Your task to perform on an android device: Open the calculator Image 0: 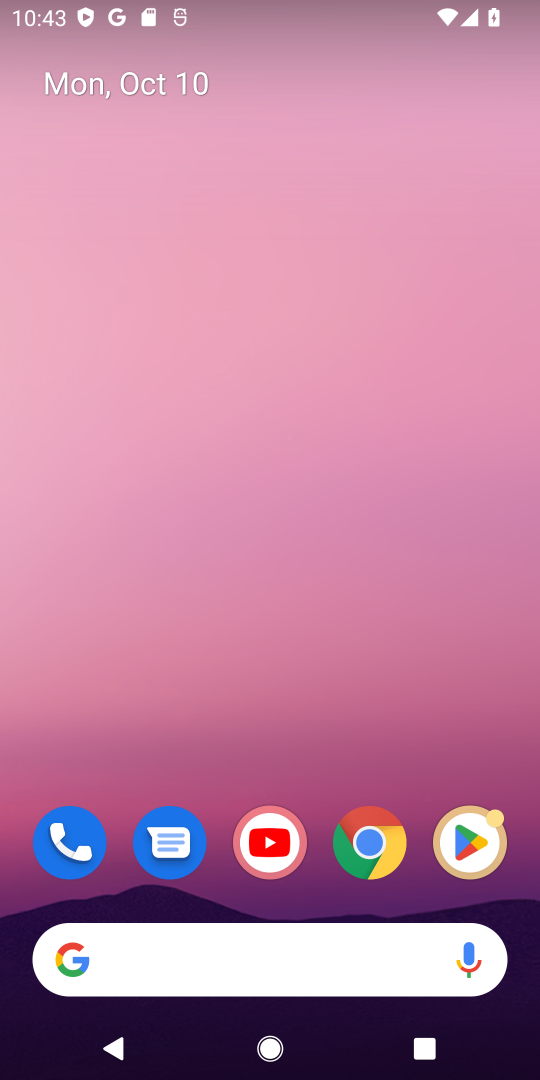
Step 0: drag from (321, 754) to (352, 14)
Your task to perform on an android device: Open the calculator Image 1: 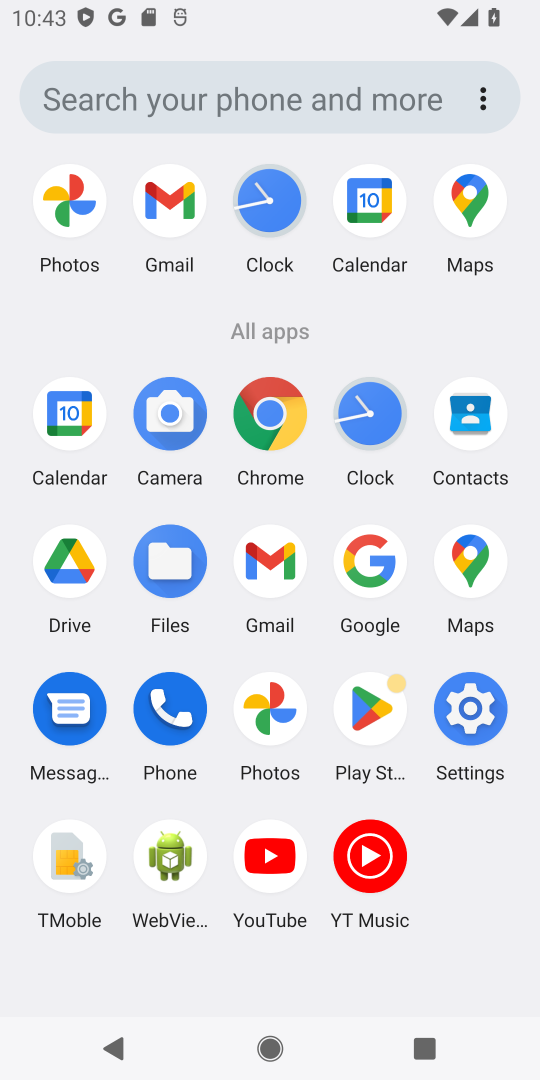
Step 1: task complete